Your task to perform on an android device: choose inbox layout in the gmail app Image 0: 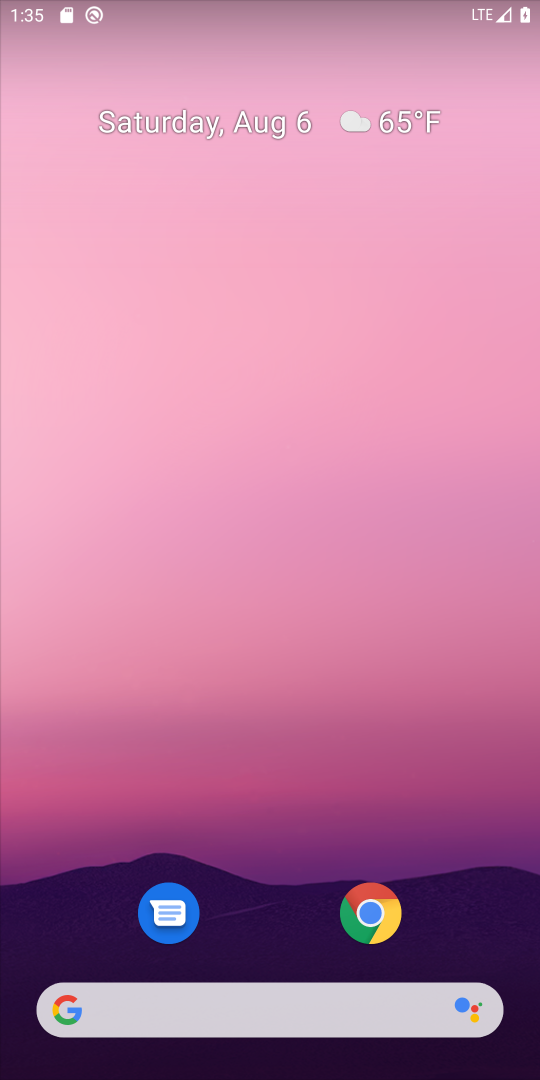
Step 0: press home button
Your task to perform on an android device: choose inbox layout in the gmail app Image 1: 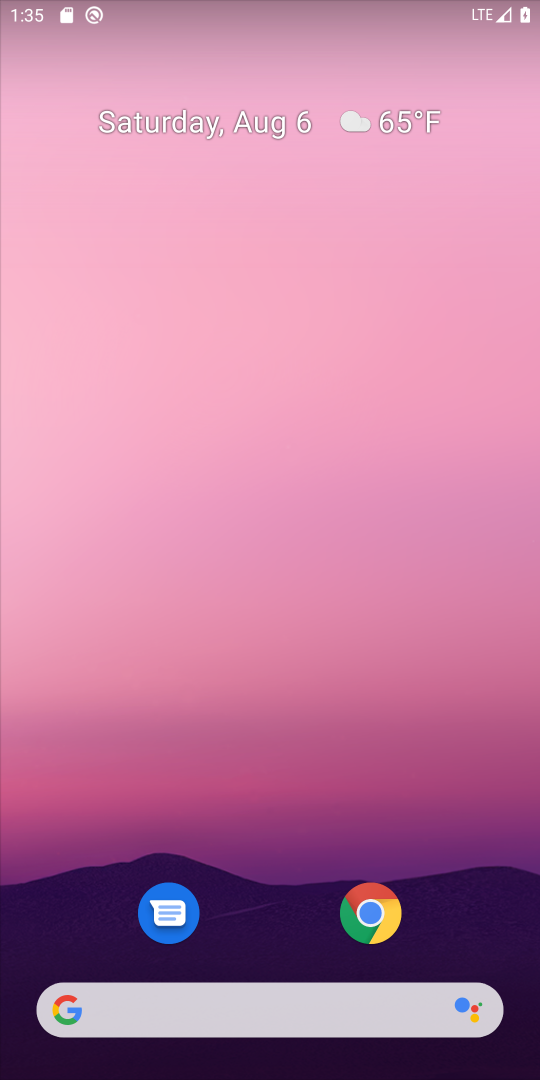
Step 1: drag from (463, 937) to (475, 189)
Your task to perform on an android device: choose inbox layout in the gmail app Image 2: 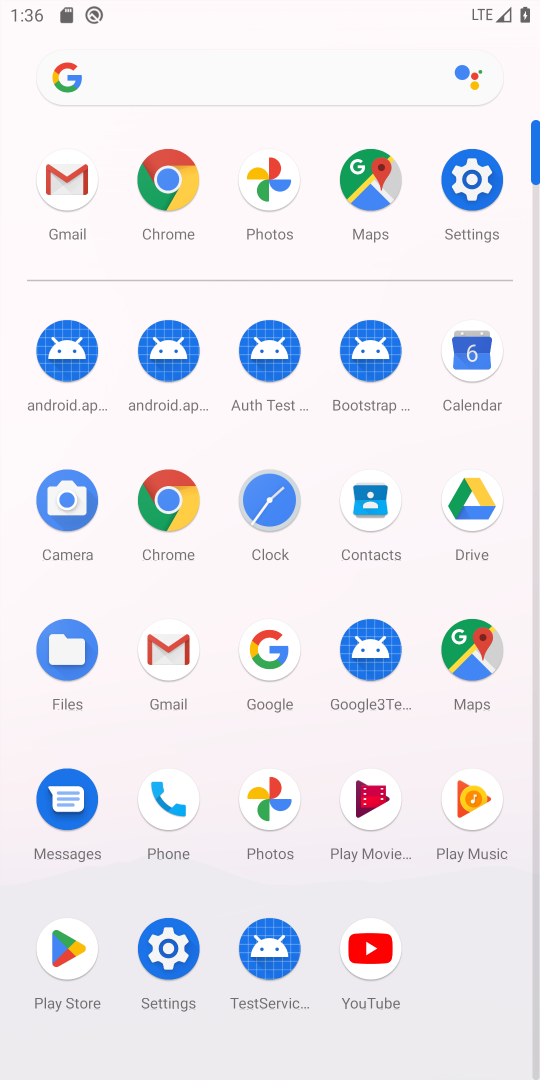
Step 2: click (163, 659)
Your task to perform on an android device: choose inbox layout in the gmail app Image 3: 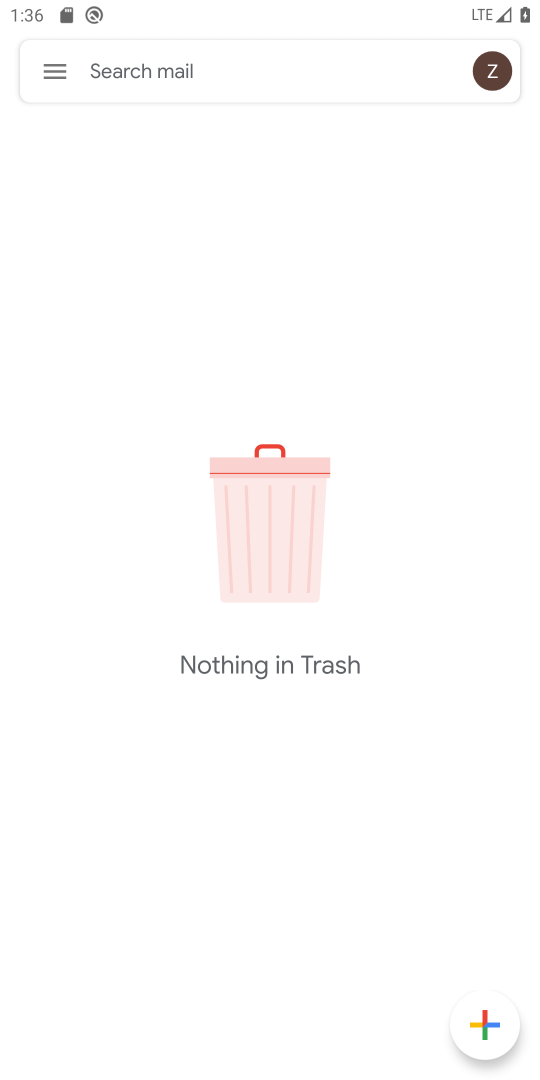
Step 3: click (49, 74)
Your task to perform on an android device: choose inbox layout in the gmail app Image 4: 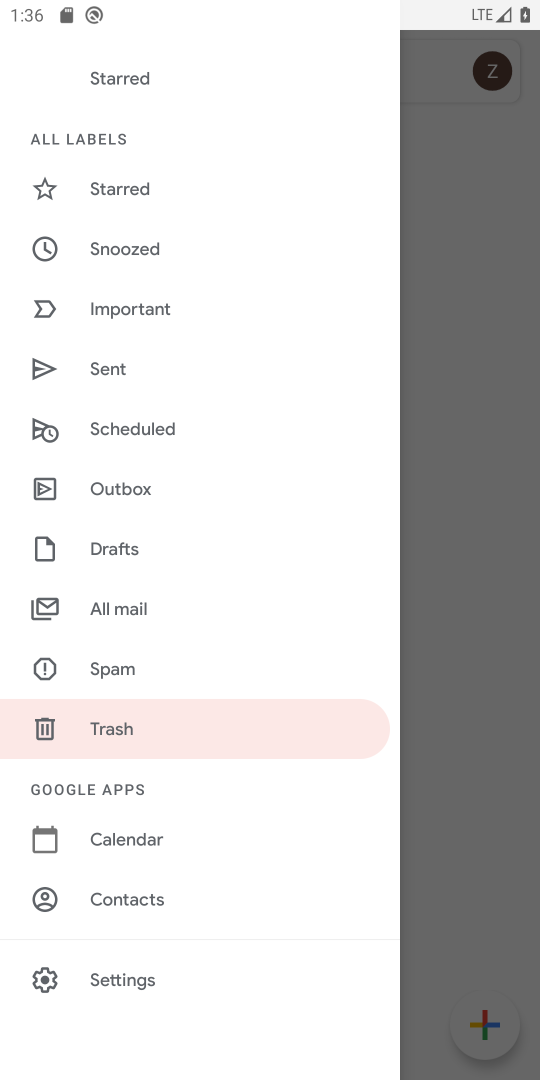
Step 4: drag from (243, 913) to (281, 635)
Your task to perform on an android device: choose inbox layout in the gmail app Image 5: 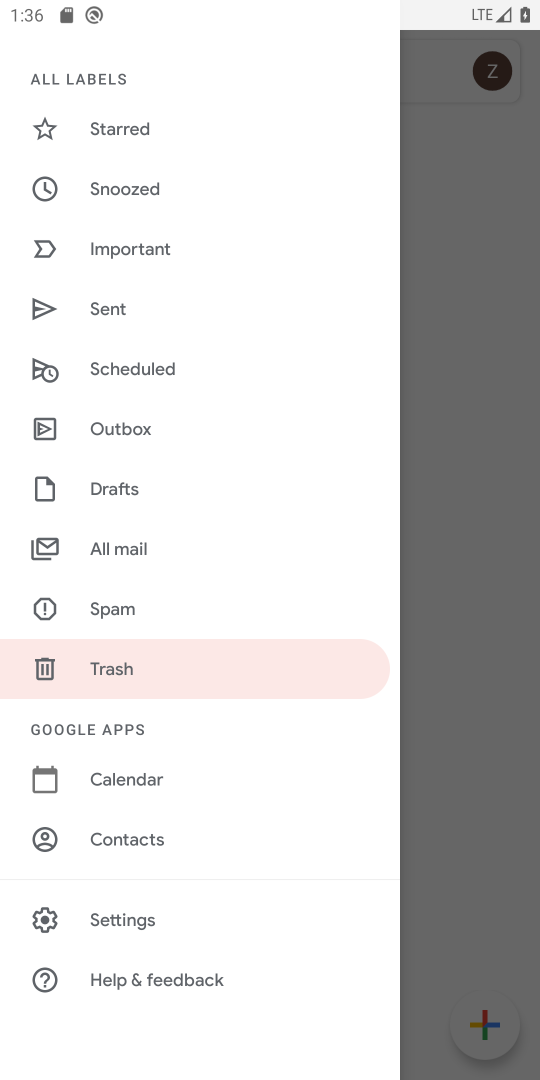
Step 5: click (150, 915)
Your task to perform on an android device: choose inbox layout in the gmail app Image 6: 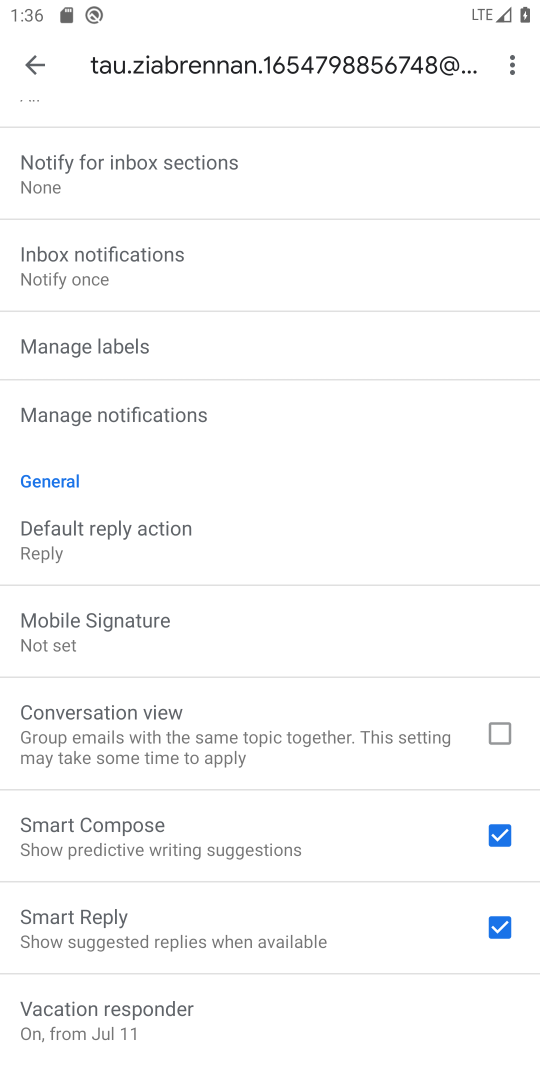
Step 6: drag from (391, 404) to (394, 687)
Your task to perform on an android device: choose inbox layout in the gmail app Image 7: 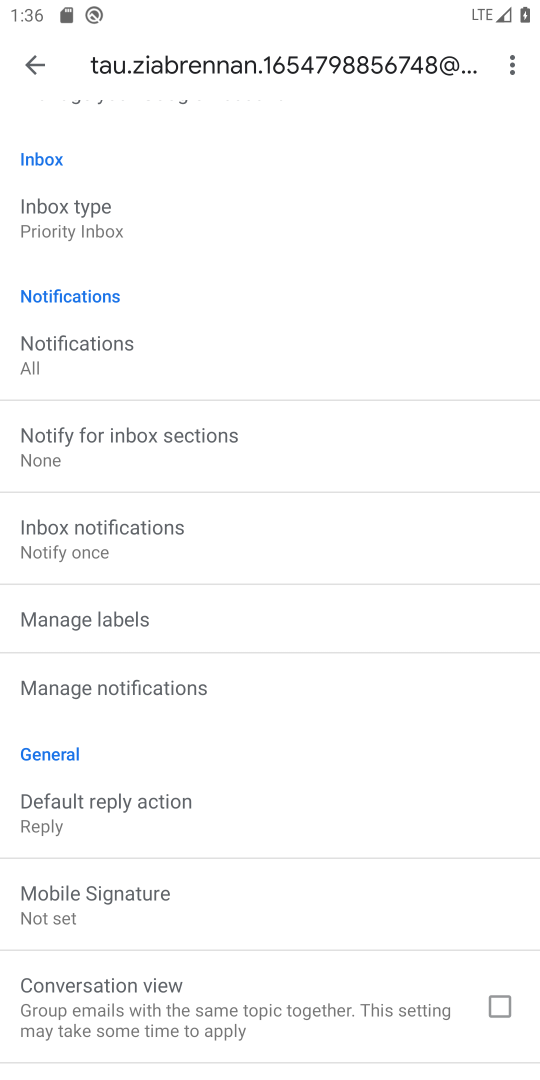
Step 7: drag from (392, 315) to (382, 689)
Your task to perform on an android device: choose inbox layout in the gmail app Image 8: 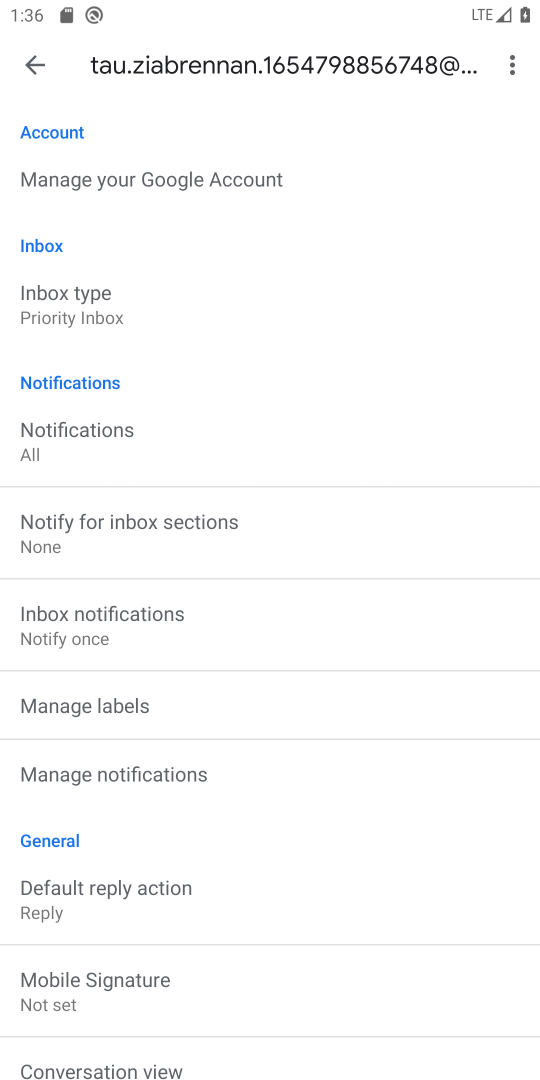
Step 8: click (111, 301)
Your task to perform on an android device: choose inbox layout in the gmail app Image 9: 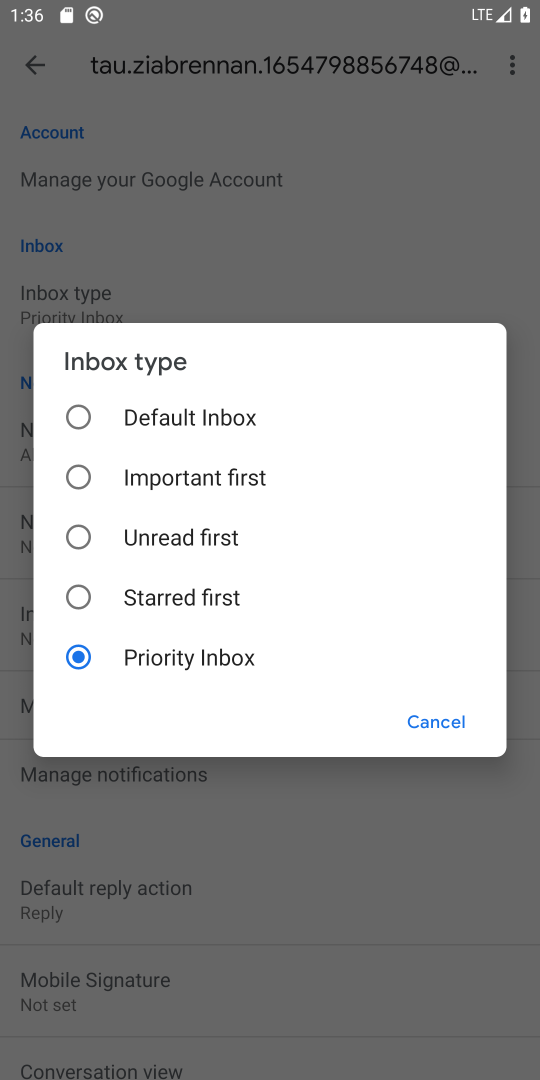
Step 9: click (159, 481)
Your task to perform on an android device: choose inbox layout in the gmail app Image 10: 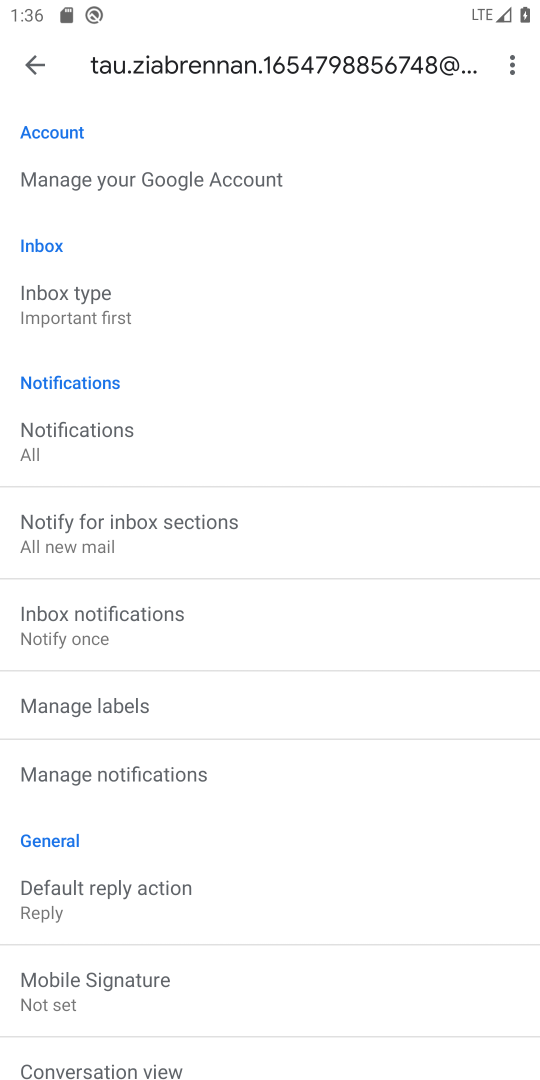
Step 10: task complete